Your task to perform on an android device: all mails in gmail Image 0: 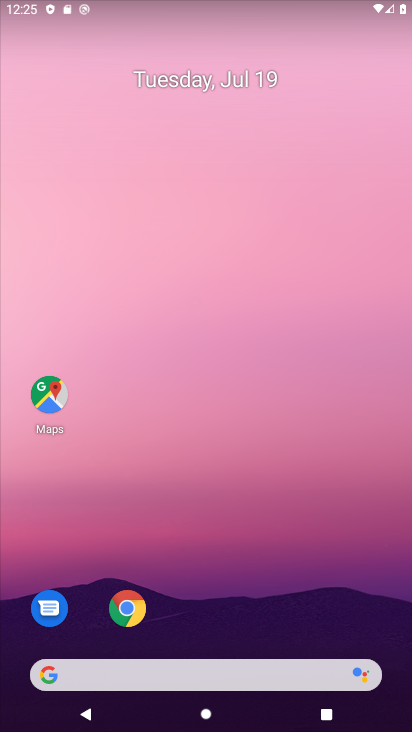
Step 0: drag from (279, 531) to (343, 179)
Your task to perform on an android device: all mails in gmail Image 1: 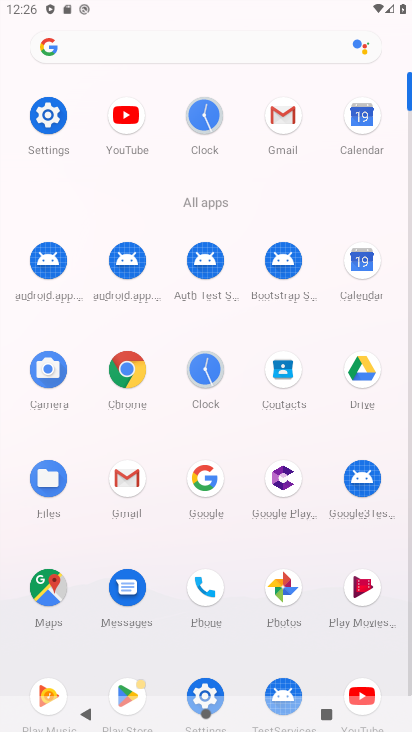
Step 1: click (135, 483)
Your task to perform on an android device: all mails in gmail Image 2: 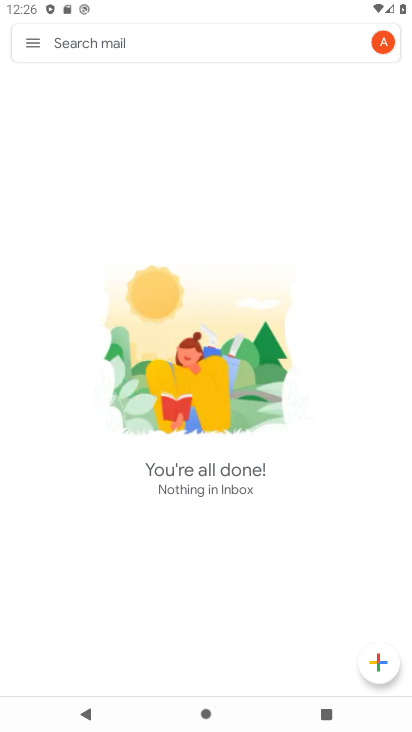
Step 2: click (39, 34)
Your task to perform on an android device: all mails in gmail Image 3: 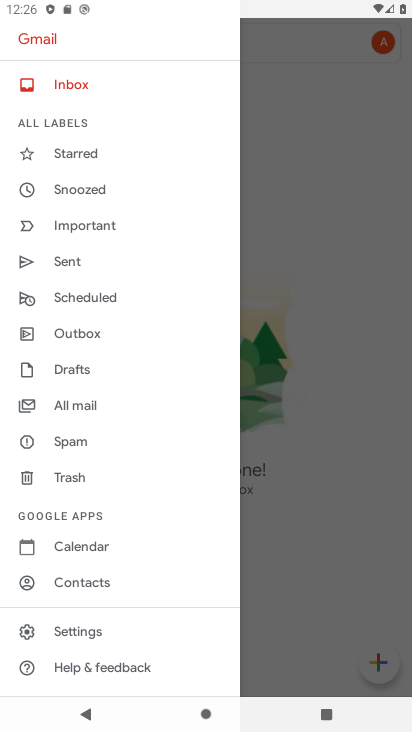
Step 3: click (66, 408)
Your task to perform on an android device: all mails in gmail Image 4: 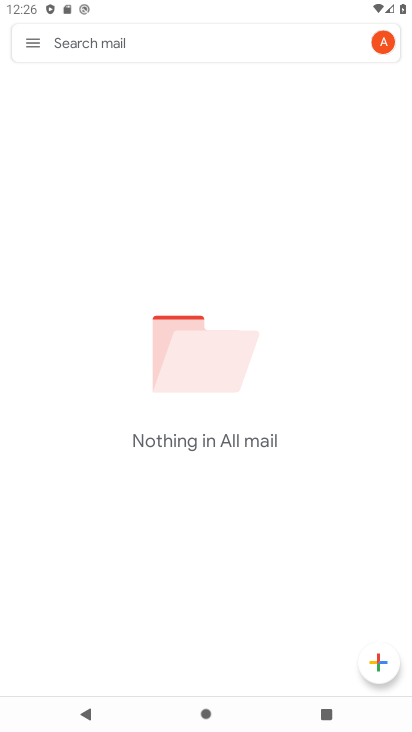
Step 4: task complete